Your task to perform on an android device: turn on improve location accuracy Image 0: 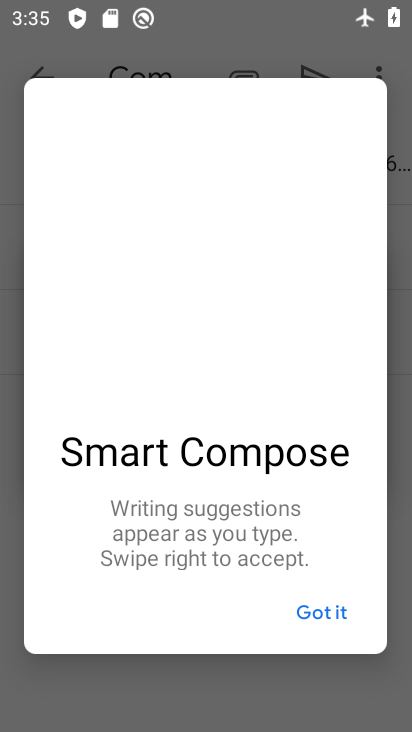
Step 0: press back button
Your task to perform on an android device: turn on improve location accuracy Image 1: 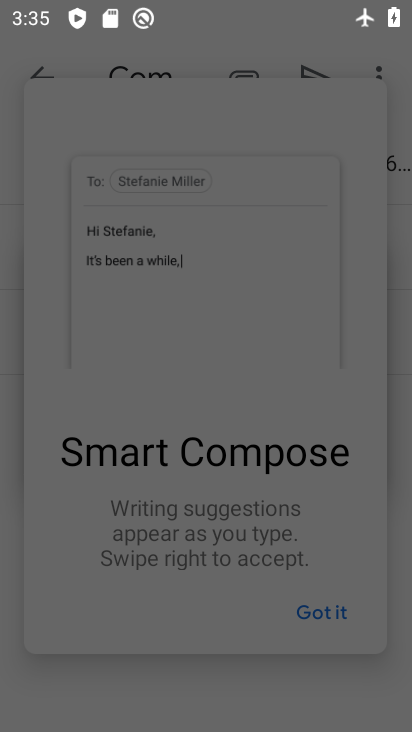
Step 1: press home button
Your task to perform on an android device: turn on improve location accuracy Image 2: 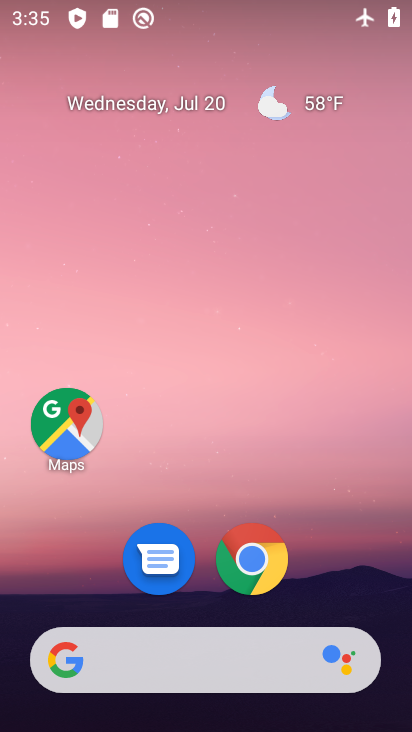
Step 2: drag from (69, 588) to (158, 17)
Your task to perform on an android device: turn on improve location accuracy Image 3: 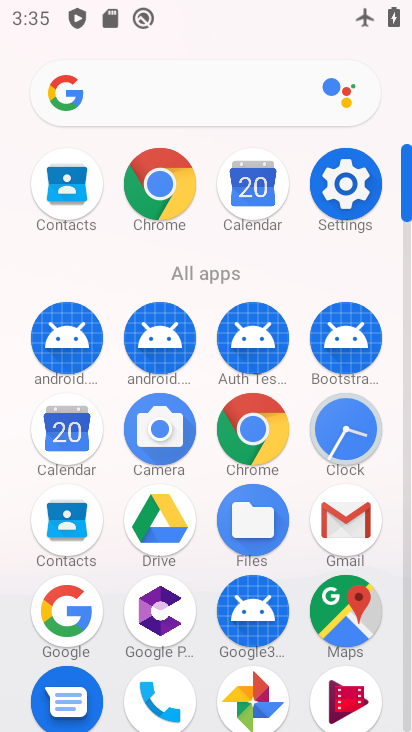
Step 3: click (349, 175)
Your task to perform on an android device: turn on improve location accuracy Image 4: 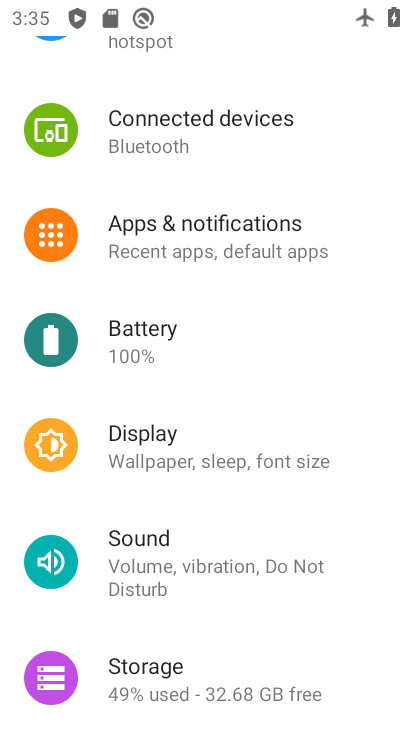
Step 4: drag from (163, 629) to (231, 159)
Your task to perform on an android device: turn on improve location accuracy Image 5: 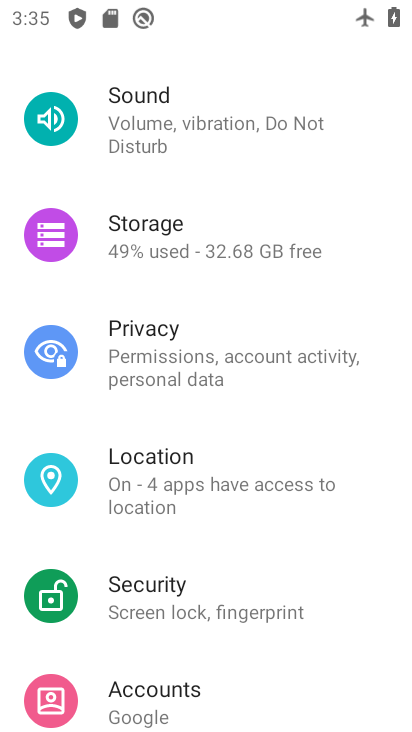
Step 5: click (158, 481)
Your task to perform on an android device: turn on improve location accuracy Image 6: 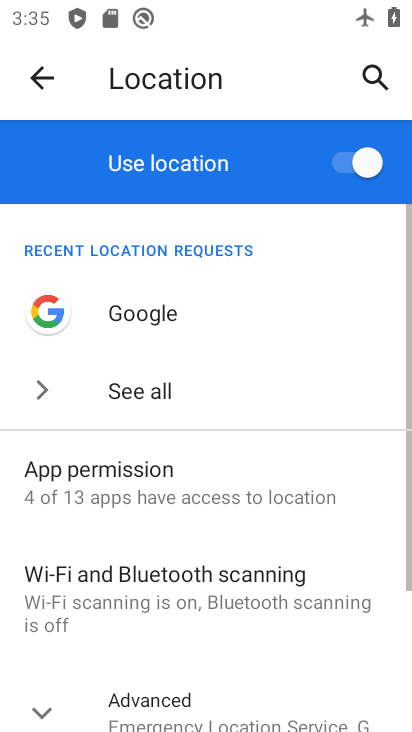
Step 6: click (155, 689)
Your task to perform on an android device: turn on improve location accuracy Image 7: 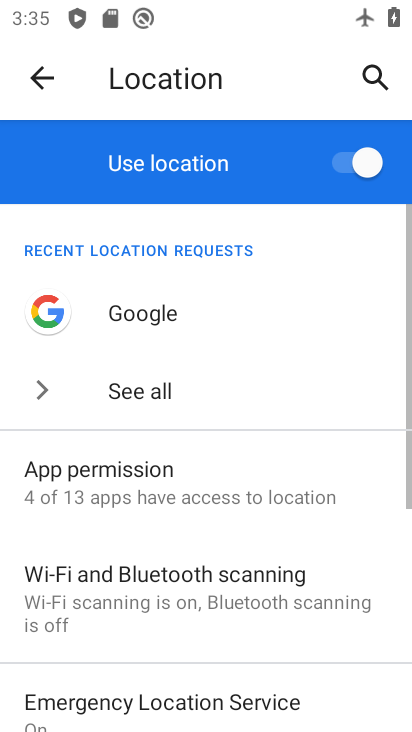
Step 7: drag from (155, 689) to (205, 310)
Your task to perform on an android device: turn on improve location accuracy Image 8: 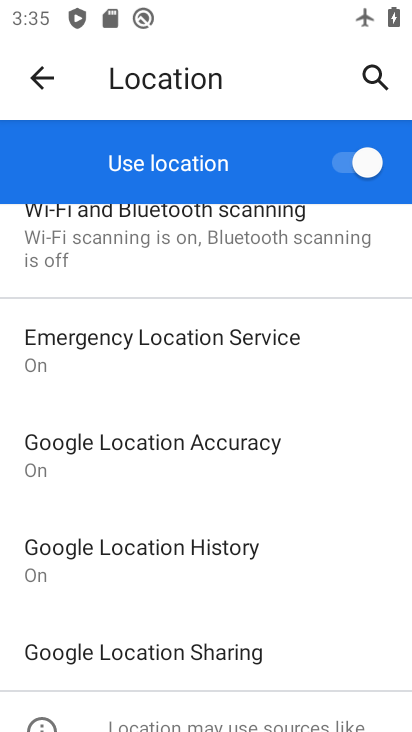
Step 8: click (202, 440)
Your task to perform on an android device: turn on improve location accuracy Image 9: 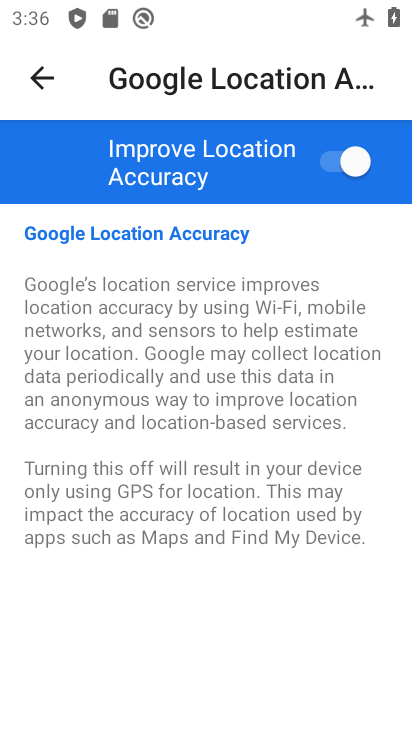
Step 9: task complete